Your task to perform on an android device: Go to network settings Image 0: 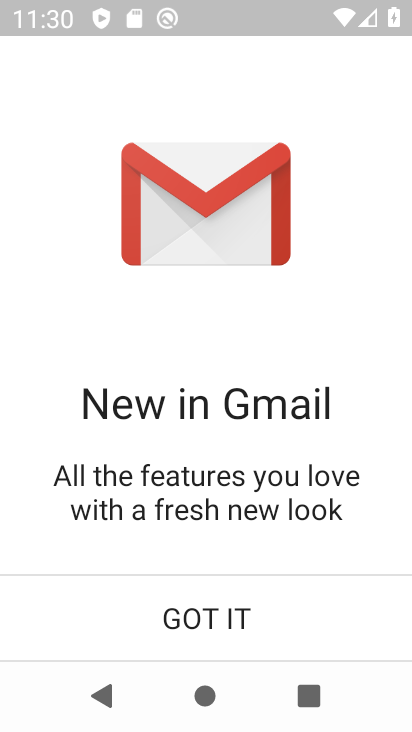
Step 0: press home button
Your task to perform on an android device: Go to network settings Image 1: 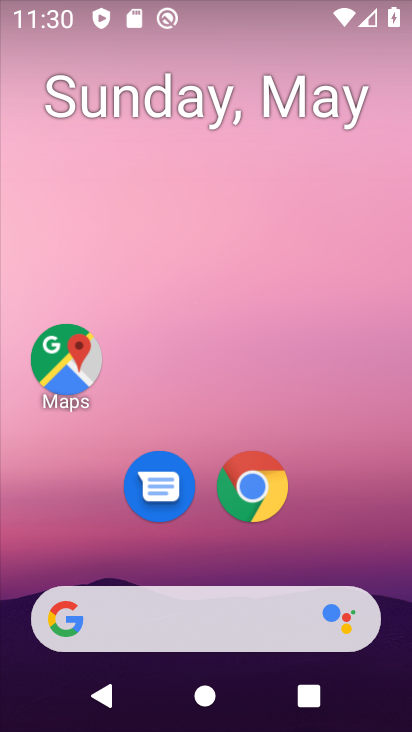
Step 1: drag from (86, 506) to (171, 71)
Your task to perform on an android device: Go to network settings Image 2: 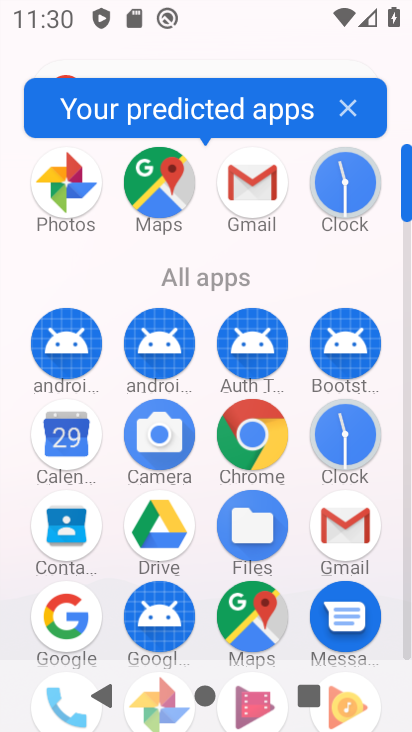
Step 2: drag from (183, 563) to (259, 275)
Your task to perform on an android device: Go to network settings Image 3: 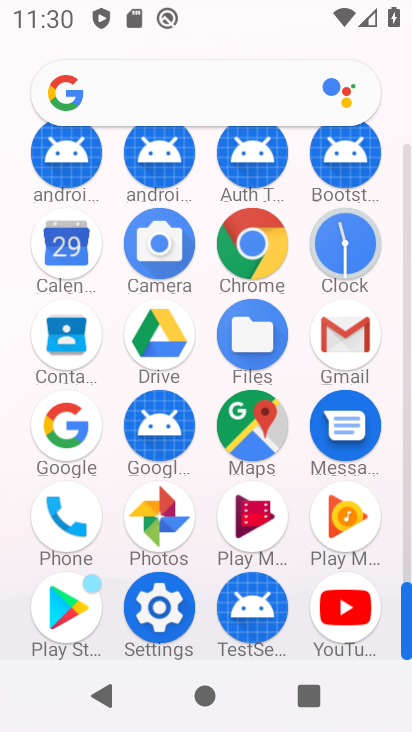
Step 3: click (167, 612)
Your task to perform on an android device: Go to network settings Image 4: 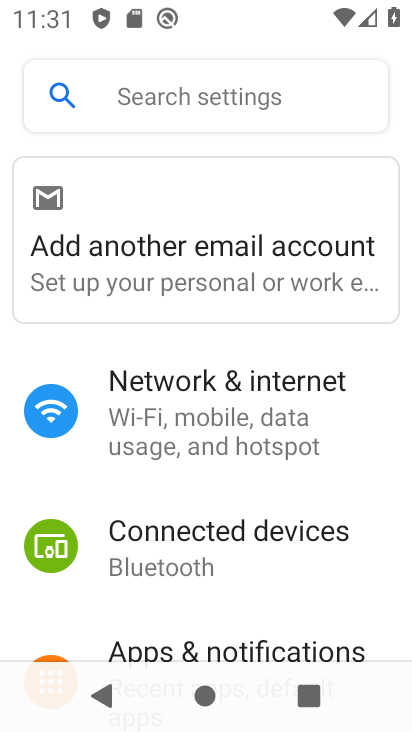
Step 4: click (230, 434)
Your task to perform on an android device: Go to network settings Image 5: 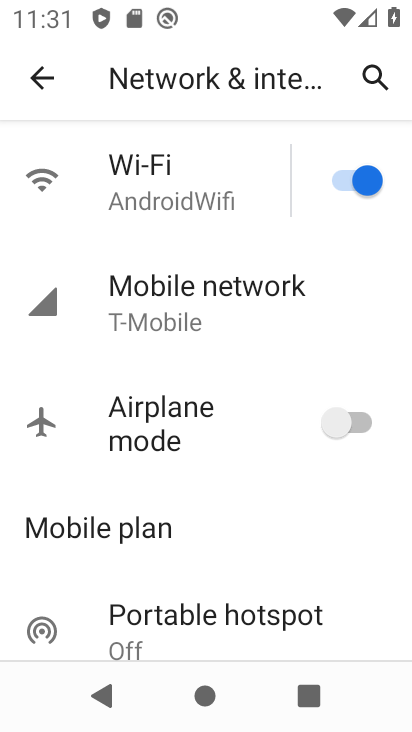
Step 5: click (301, 311)
Your task to perform on an android device: Go to network settings Image 6: 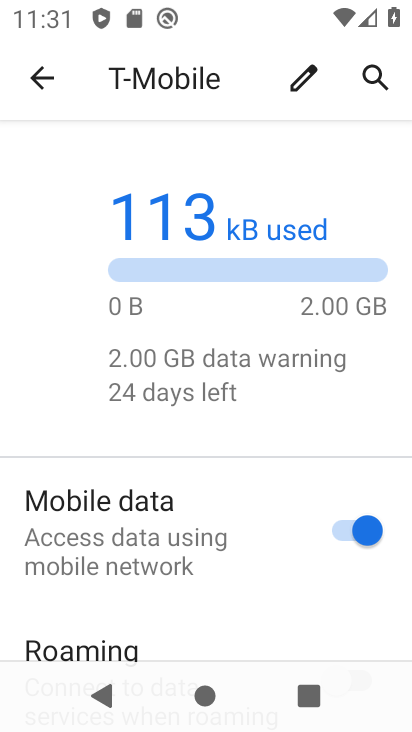
Step 6: task complete